Your task to perform on an android device: Do I have any events this weekend? Image 0: 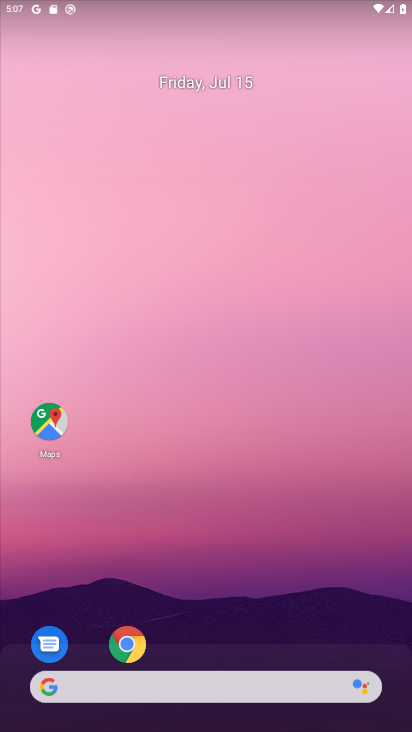
Step 0: drag from (186, 659) to (157, 0)
Your task to perform on an android device: Do I have any events this weekend? Image 1: 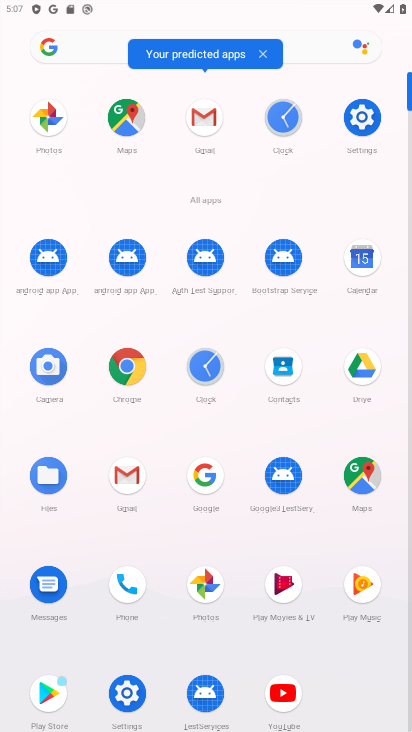
Step 1: click (355, 266)
Your task to perform on an android device: Do I have any events this weekend? Image 2: 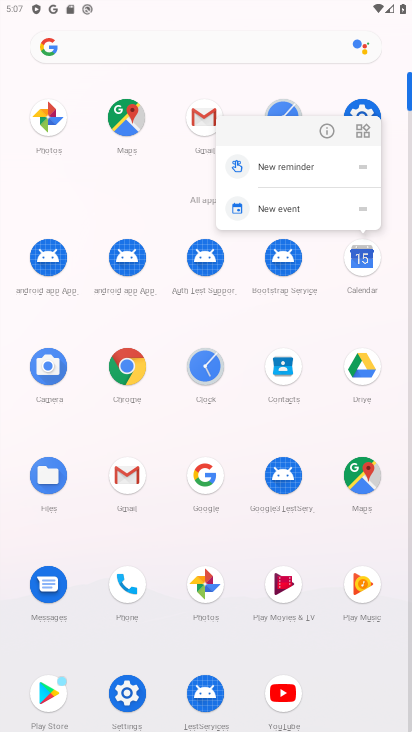
Step 2: click (363, 257)
Your task to perform on an android device: Do I have any events this weekend? Image 3: 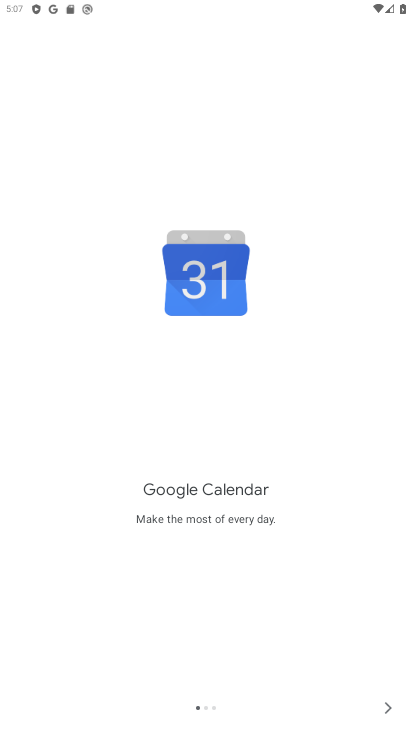
Step 3: click (387, 710)
Your task to perform on an android device: Do I have any events this weekend? Image 4: 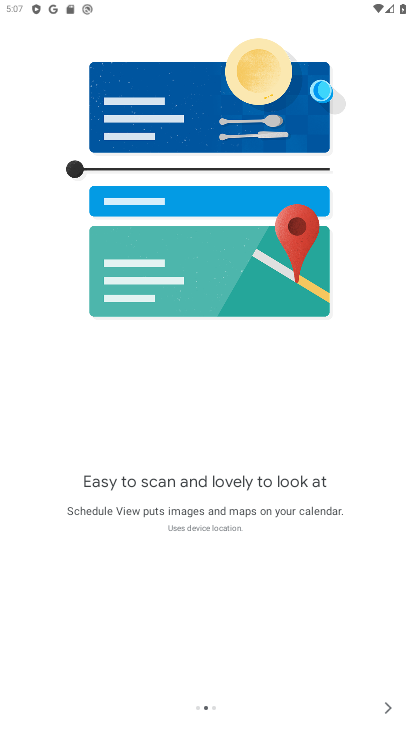
Step 4: click (387, 710)
Your task to perform on an android device: Do I have any events this weekend? Image 5: 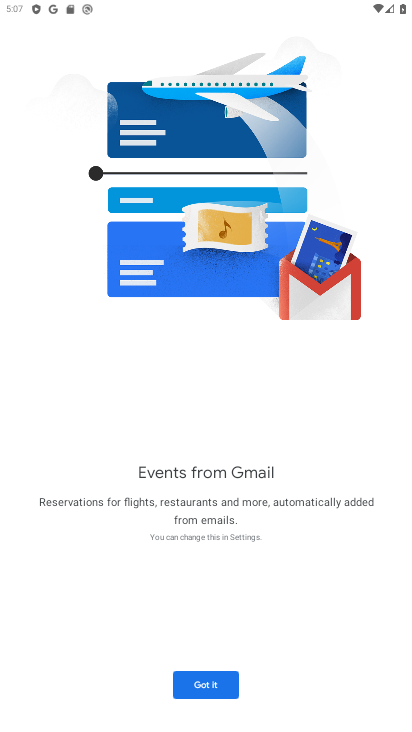
Step 5: click (387, 710)
Your task to perform on an android device: Do I have any events this weekend? Image 6: 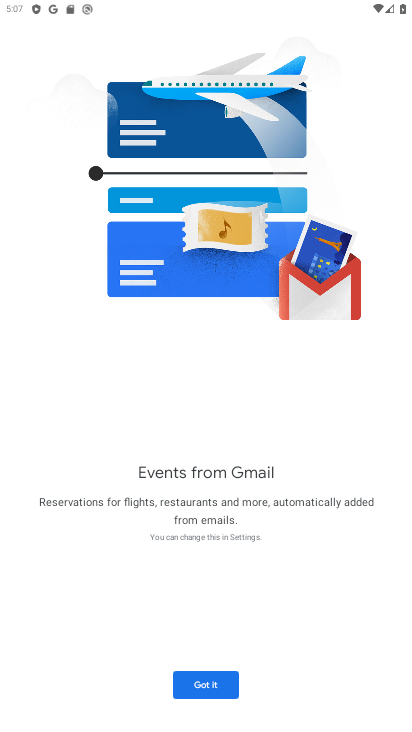
Step 6: click (213, 683)
Your task to perform on an android device: Do I have any events this weekend? Image 7: 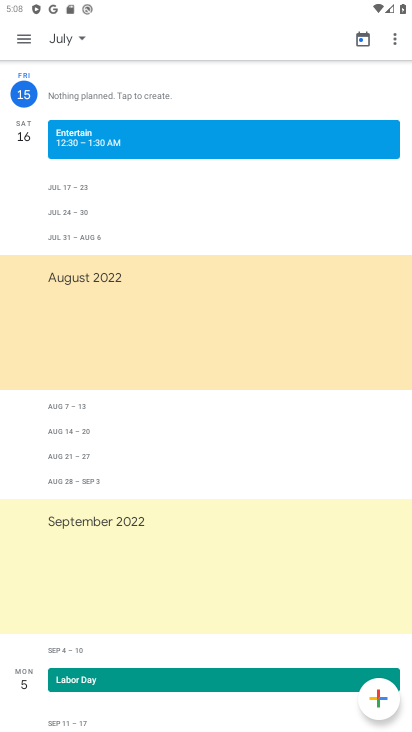
Step 7: task complete